Your task to perform on an android device: turn on location history Image 0: 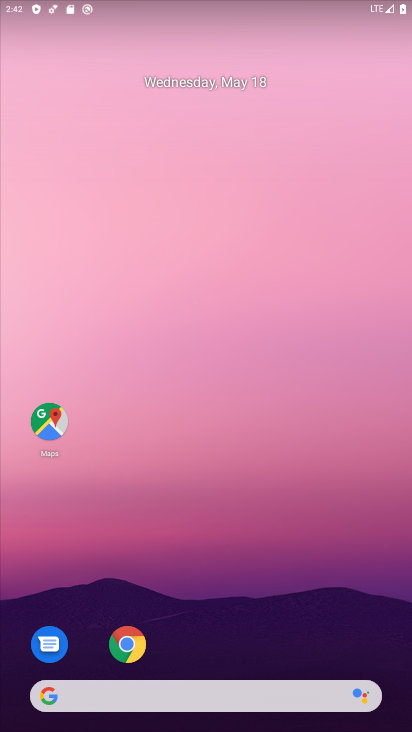
Step 0: drag from (207, 685) to (270, 188)
Your task to perform on an android device: turn on location history Image 1: 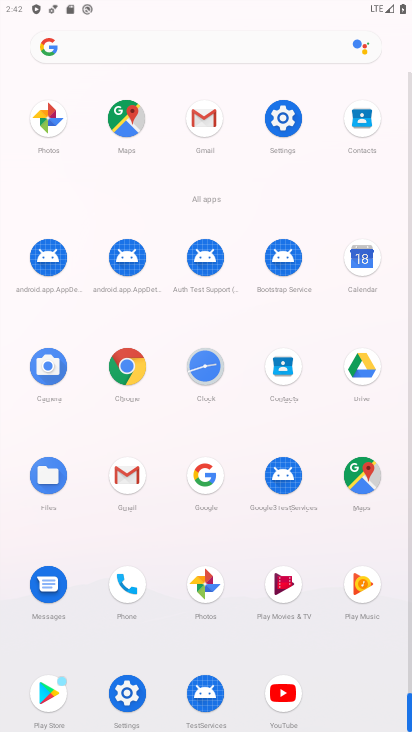
Step 1: click (283, 122)
Your task to perform on an android device: turn on location history Image 2: 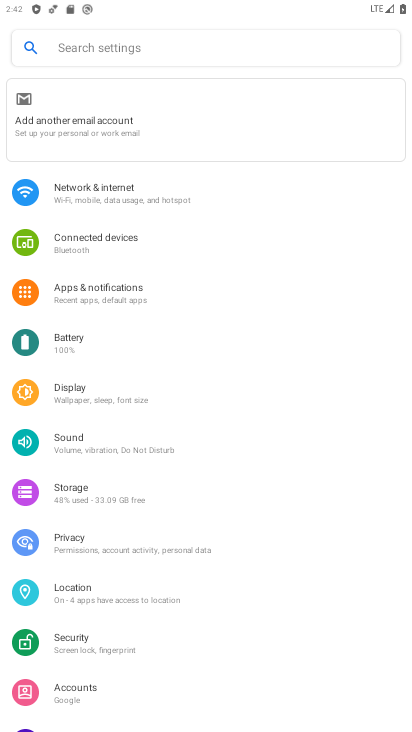
Step 2: click (89, 601)
Your task to perform on an android device: turn on location history Image 3: 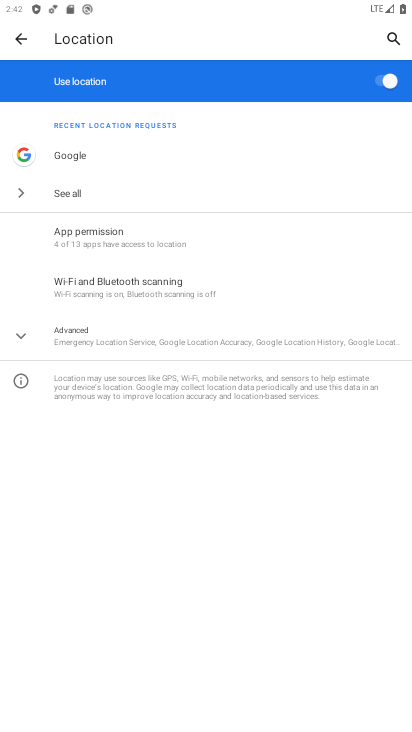
Step 3: click (94, 334)
Your task to perform on an android device: turn on location history Image 4: 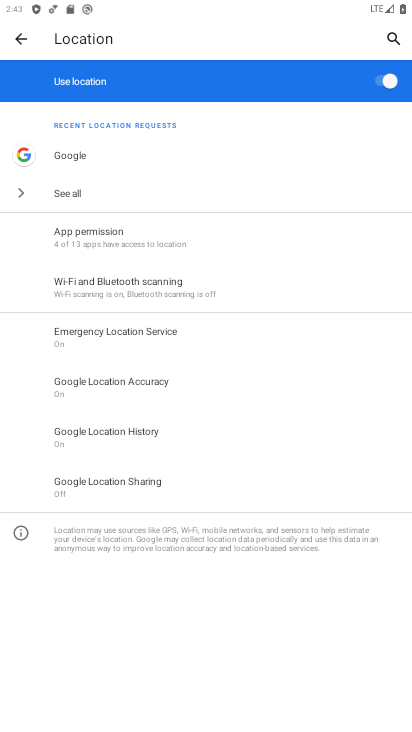
Step 4: click (64, 428)
Your task to perform on an android device: turn on location history Image 5: 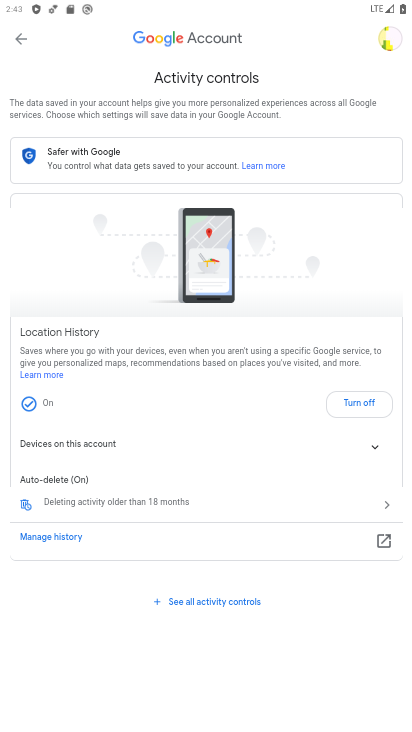
Step 5: task complete